Your task to perform on an android device: open app "Microsoft Excel" Image 0: 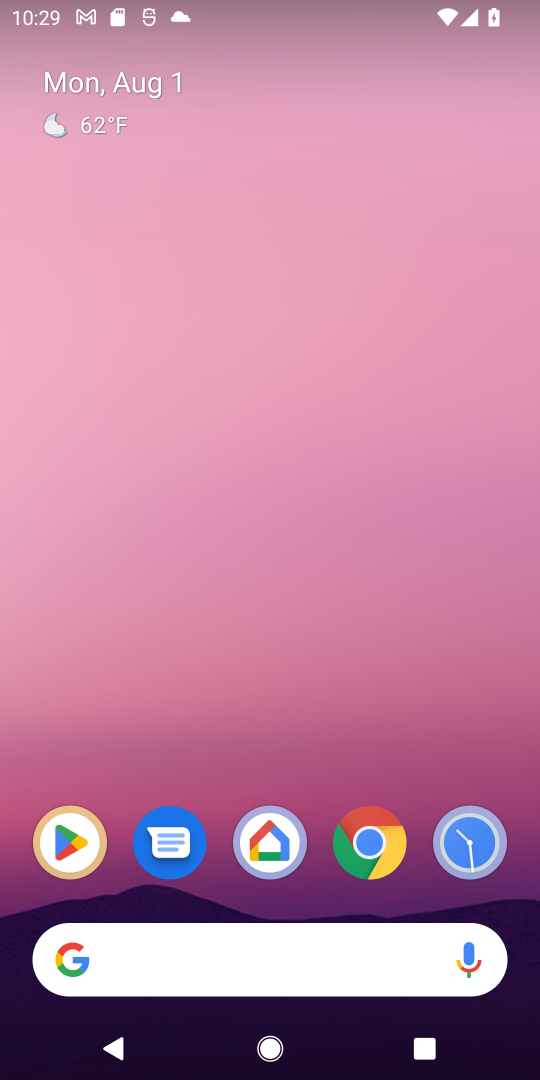
Step 0: click (72, 840)
Your task to perform on an android device: open app "Microsoft Excel" Image 1: 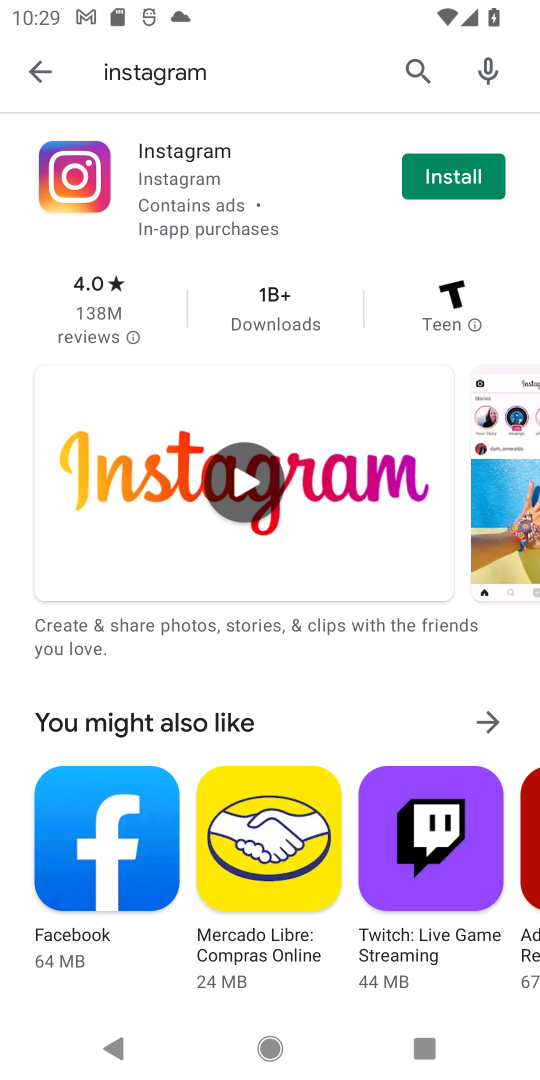
Step 1: click (419, 61)
Your task to perform on an android device: open app "Microsoft Excel" Image 2: 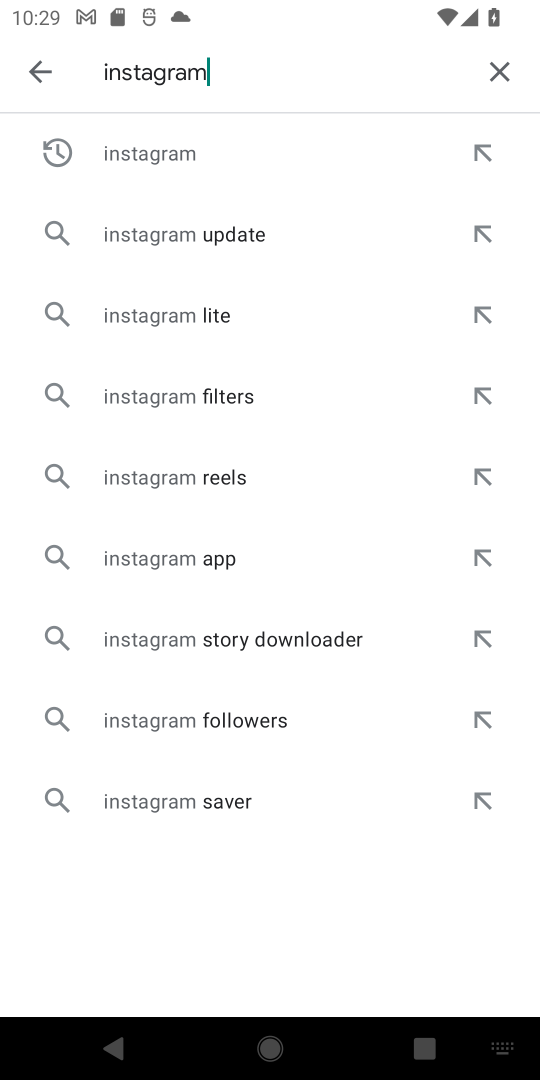
Step 2: click (502, 66)
Your task to perform on an android device: open app "Microsoft Excel" Image 3: 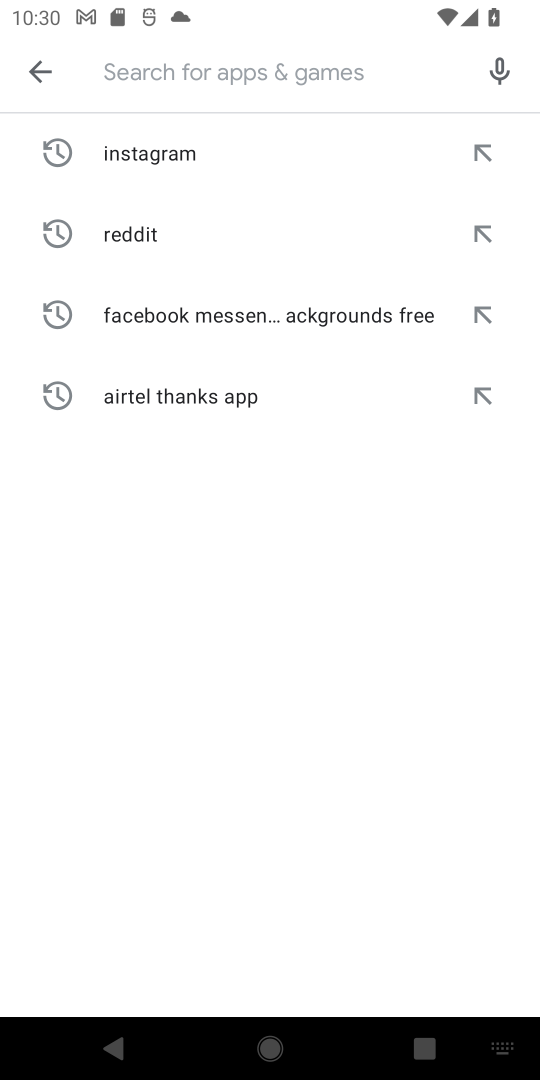
Step 3: click (242, 77)
Your task to perform on an android device: open app "Microsoft Excel" Image 4: 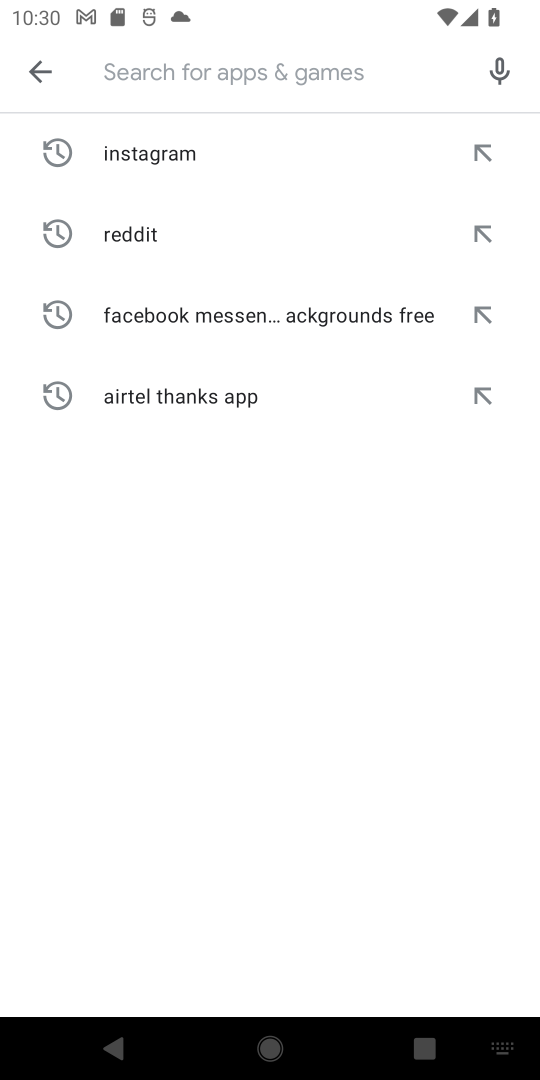
Step 4: type "Microsoft Excel"
Your task to perform on an android device: open app "Microsoft Excel" Image 5: 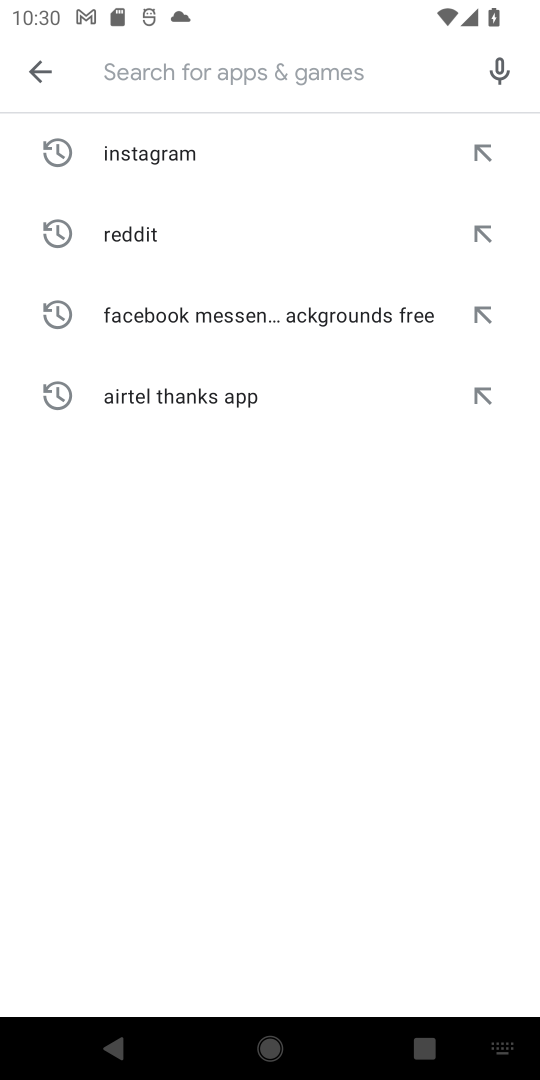
Step 5: click (174, 560)
Your task to perform on an android device: open app "Microsoft Excel" Image 6: 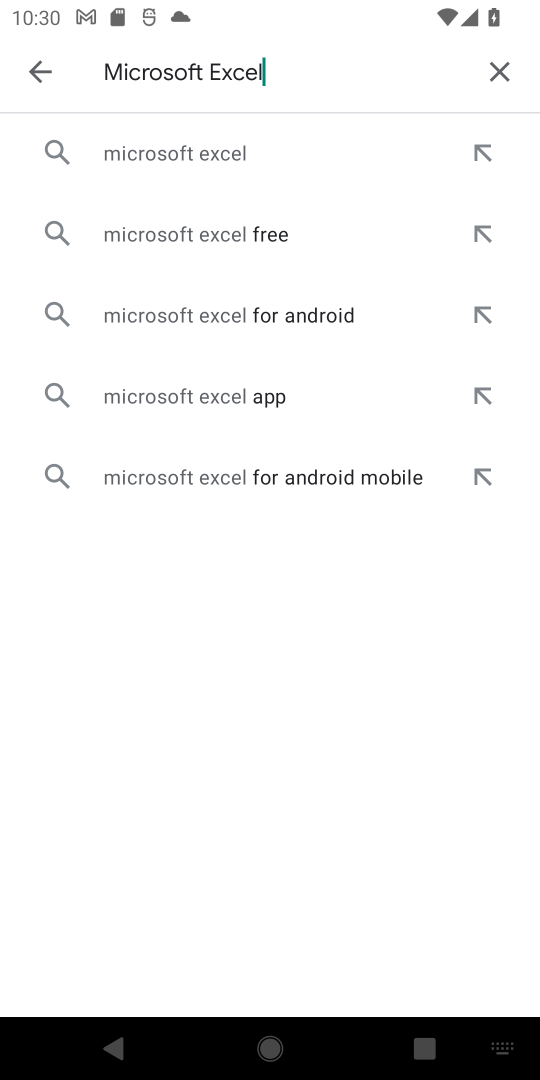
Step 6: click (235, 137)
Your task to perform on an android device: open app "Microsoft Excel" Image 7: 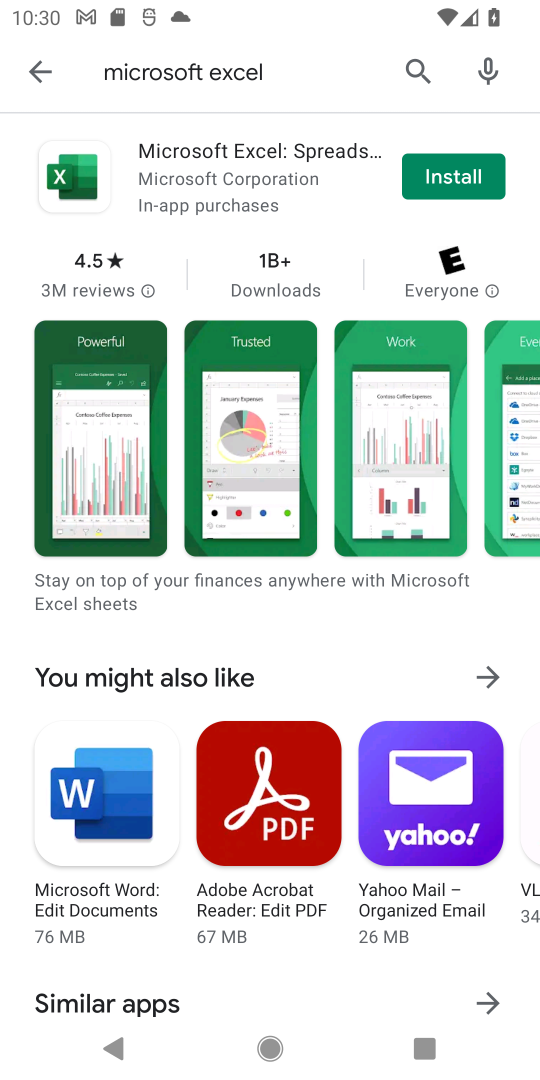
Step 7: task complete